Your task to perform on an android device: Open the web browser Image 0: 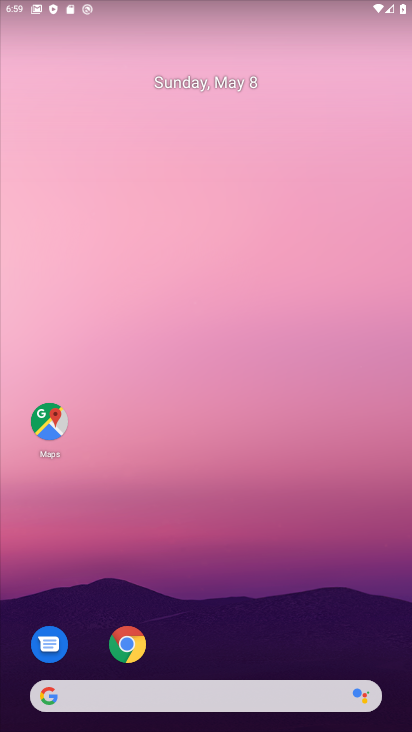
Step 0: drag from (307, 597) to (341, 245)
Your task to perform on an android device: Open the web browser Image 1: 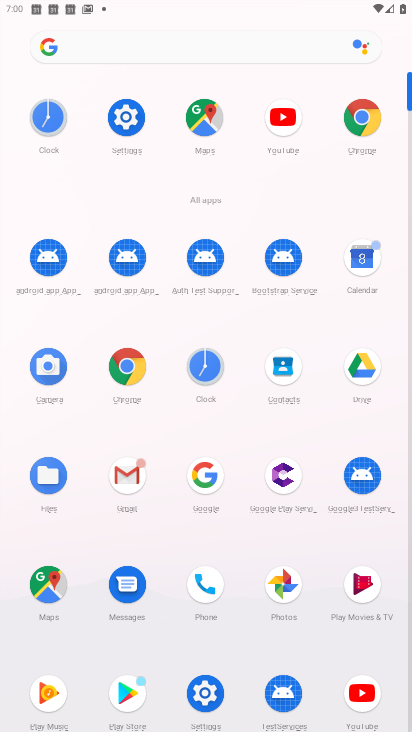
Step 1: task complete